Your task to perform on an android device: turn on bluetooth scan Image 0: 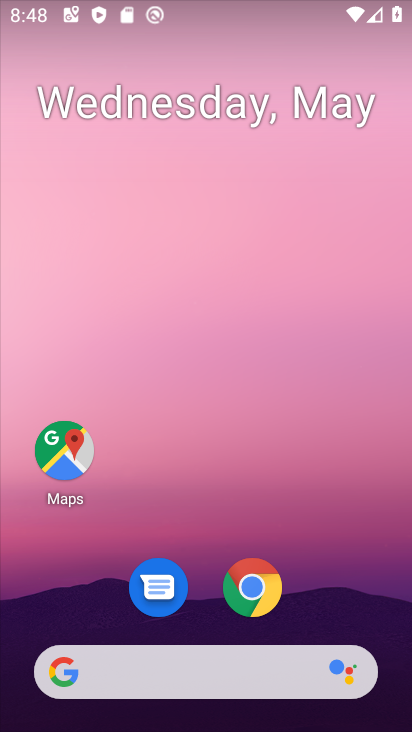
Step 0: drag from (201, 725) to (198, 84)
Your task to perform on an android device: turn on bluetooth scan Image 1: 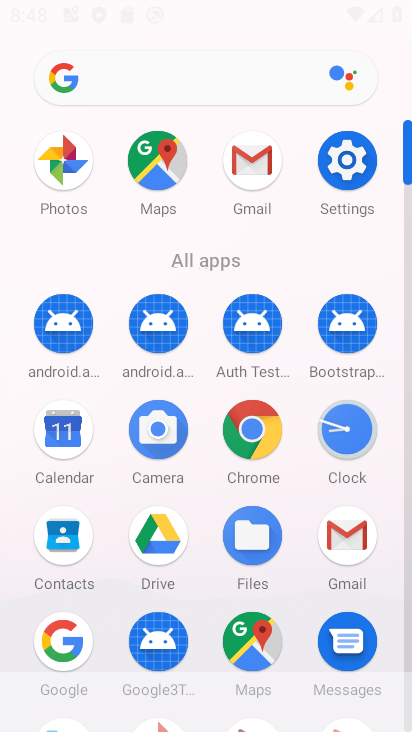
Step 1: click (342, 169)
Your task to perform on an android device: turn on bluetooth scan Image 2: 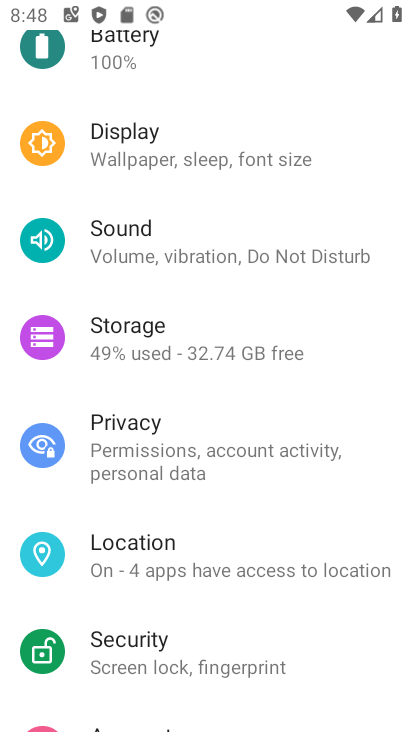
Step 2: drag from (274, 169) to (246, 203)
Your task to perform on an android device: turn on bluetooth scan Image 3: 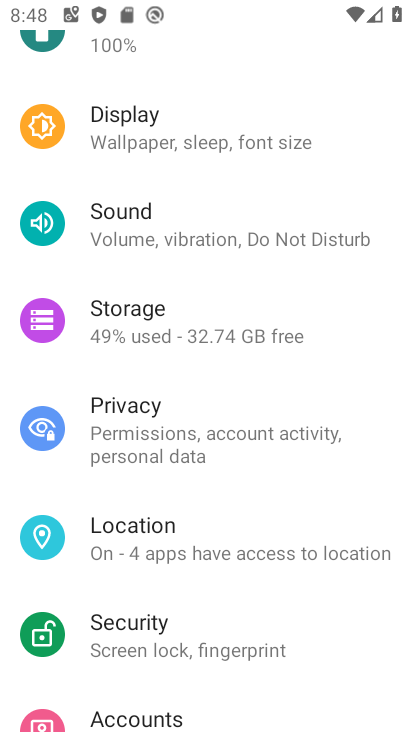
Step 3: click (128, 541)
Your task to perform on an android device: turn on bluetooth scan Image 4: 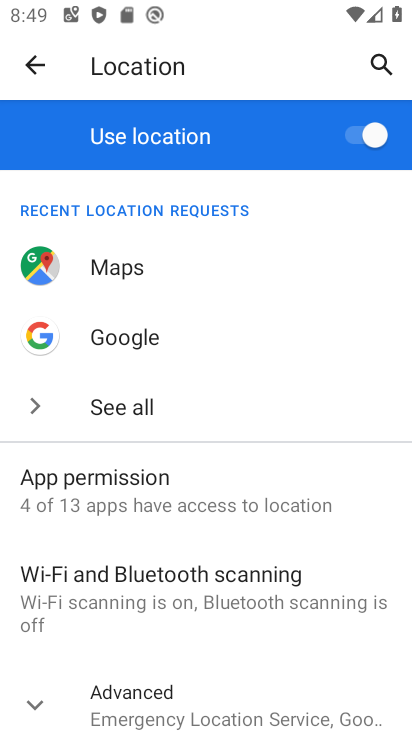
Step 4: click (125, 580)
Your task to perform on an android device: turn on bluetooth scan Image 5: 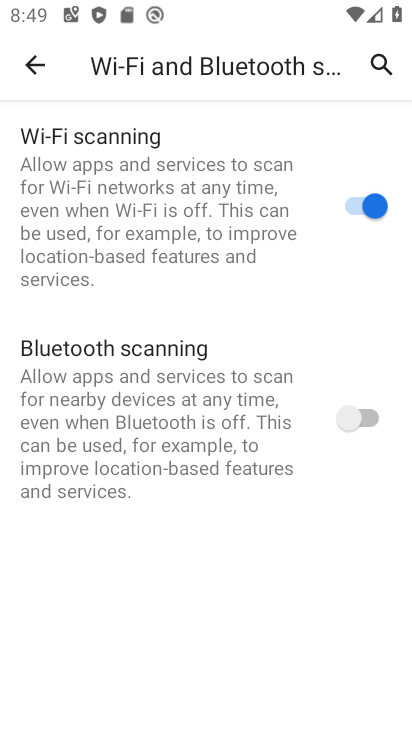
Step 5: click (367, 417)
Your task to perform on an android device: turn on bluetooth scan Image 6: 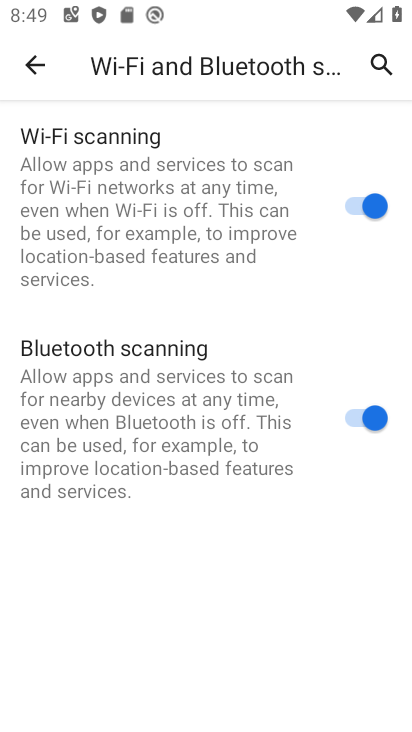
Step 6: task complete